Your task to perform on an android device: clear all cookies in the chrome app Image 0: 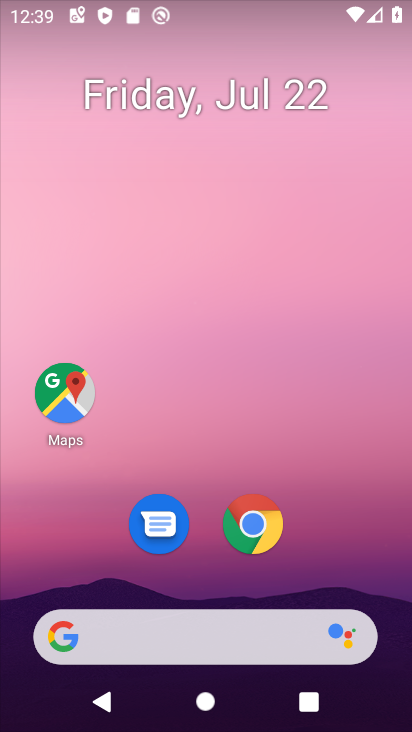
Step 0: click (267, 529)
Your task to perform on an android device: clear all cookies in the chrome app Image 1: 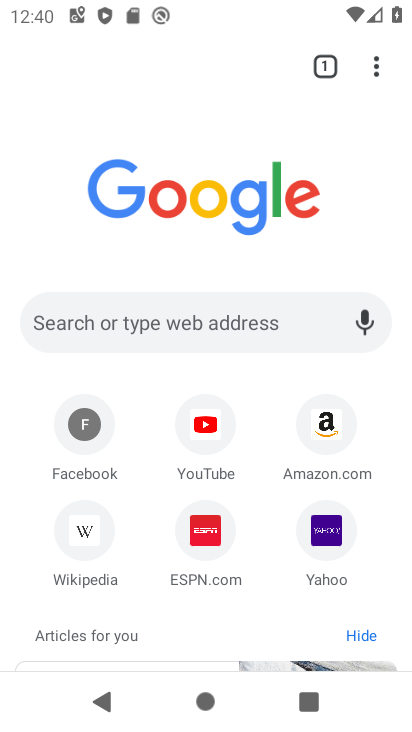
Step 1: click (373, 72)
Your task to perform on an android device: clear all cookies in the chrome app Image 2: 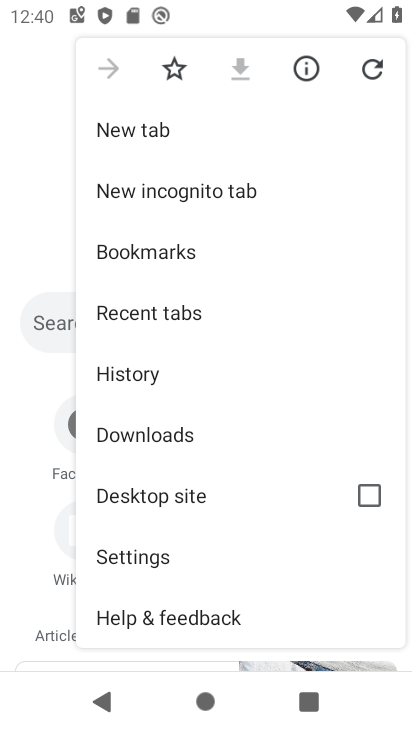
Step 2: click (161, 556)
Your task to perform on an android device: clear all cookies in the chrome app Image 3: 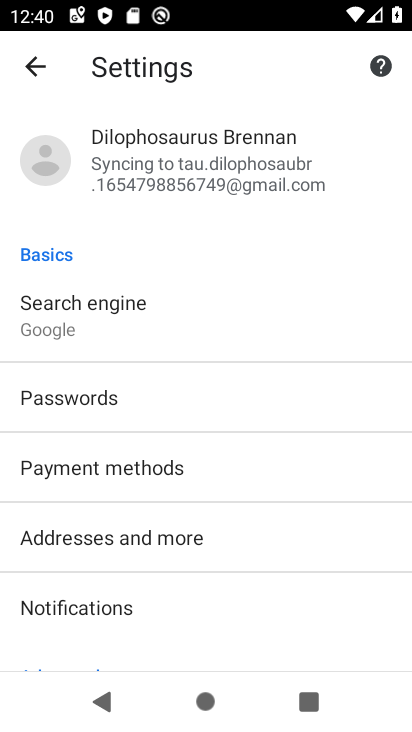
Step 3: drag from (225, 576) to (261, 260)
Your task to perform on an android device: clear all cookies in the chrome app Image 4: 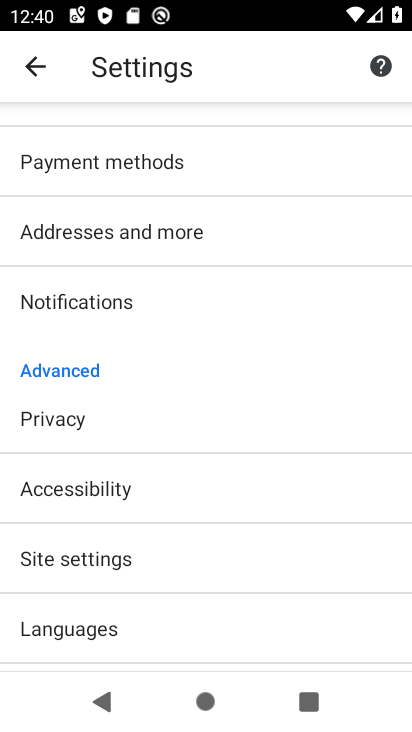
Step 4: click (106, 422)
Your task to perform on an android device: clear all cookies in the chrome app Image 5: 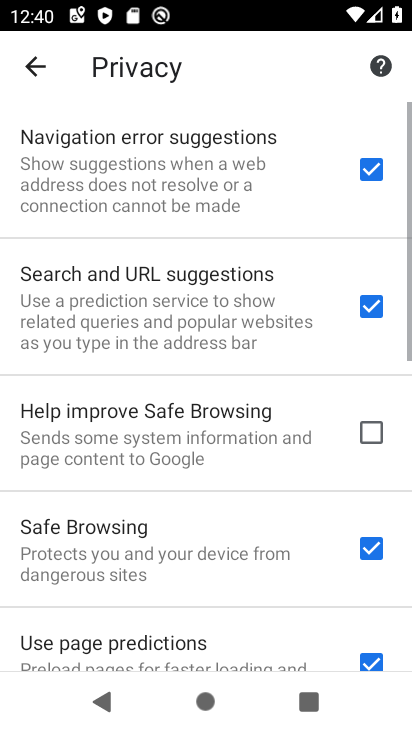
Step 5: drag from (219, 591) to (295, 70)
Your task to perform on an android device: clear all cookies in the chrome app Image 6: 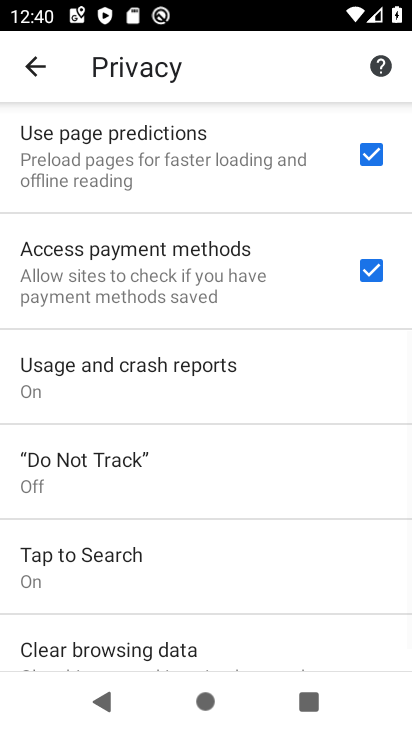
Step 6: drag from (227, 488) to (248, 265)
Your task to perform on an android device: clear all cookies in the chrome app Image 7: 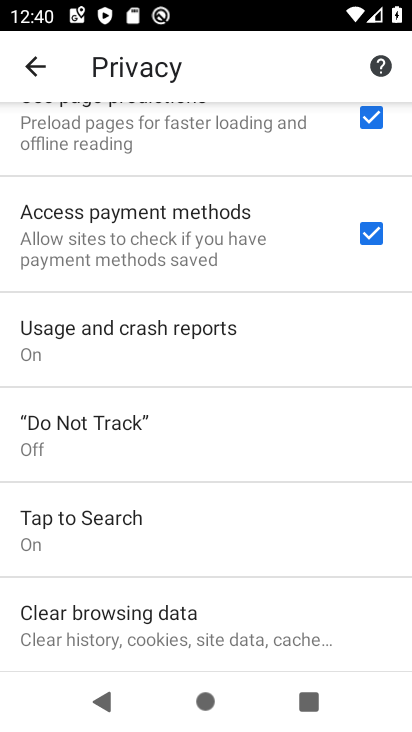
Step 7: click (195, 618)
Your task to perform on an android device: clear all cookies in the chrome app Image 8: 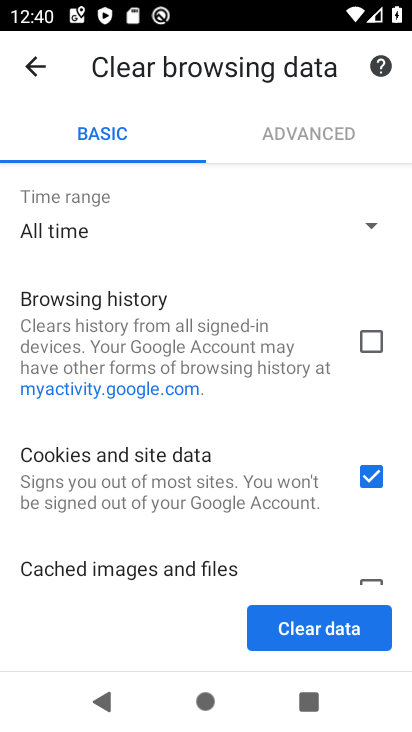
Step 8: click (278, 626)
Your task to perform on an android device: clear all cookies in the chrome app Image 9: 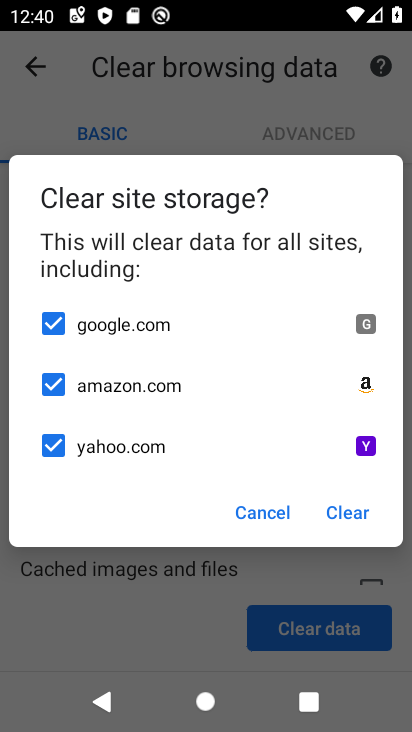
Step 9: click (360, 508)
Your task to perform on an android device: clear all cookies in the chrome app Image 10: 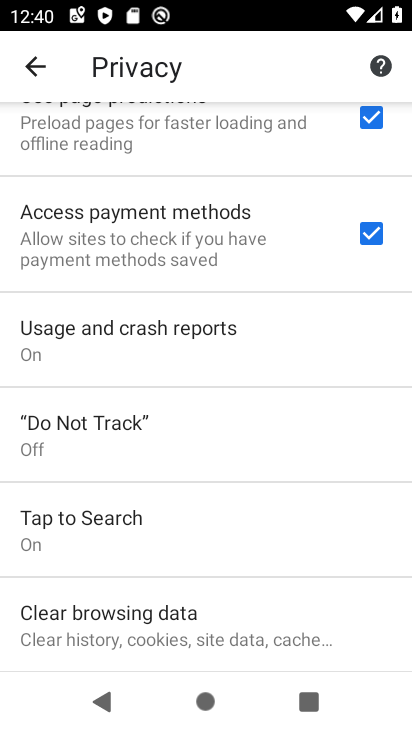
Step 10: task complete